Your task to perform on an android device: set default search engine in the chrome app Image 0: 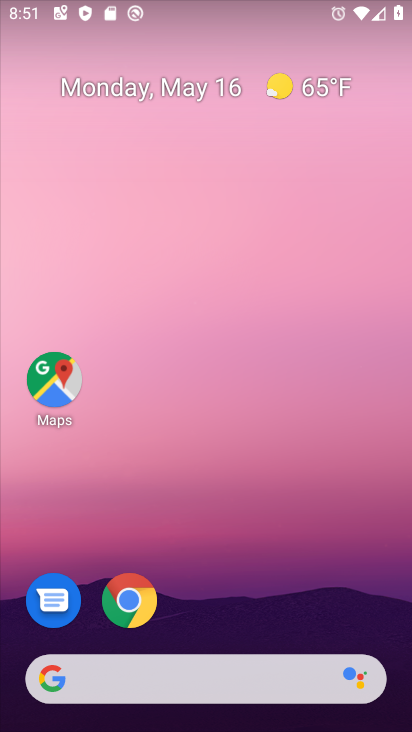
Step 0: drag from (230, 611) to (283, 15)
Your task to perform on an android device: set default search engine in the chrome app Image 1: 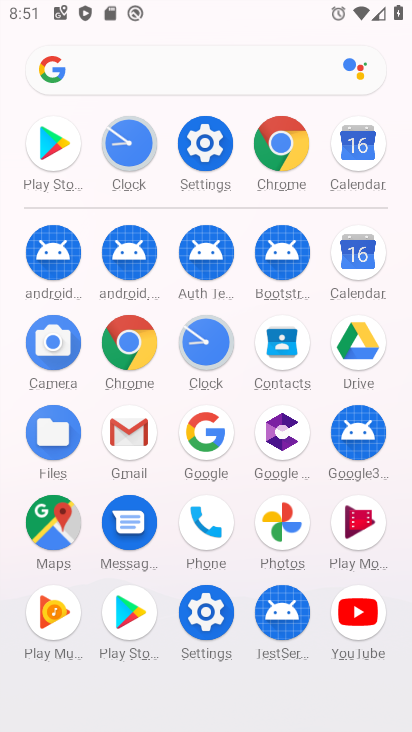
Step 1: click (129, 330)
Your task to perform on an android device: set default search engine in the chrome app Image 2: 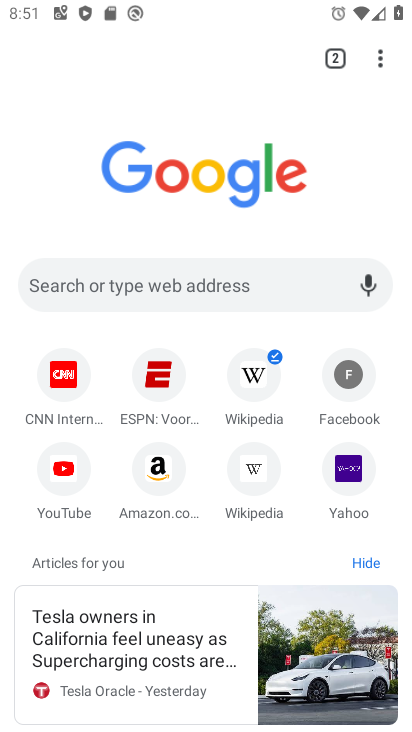
Step 2: click (378, 45)
Your task to perform on an android device: set default search engine in the chrome app Image 3: 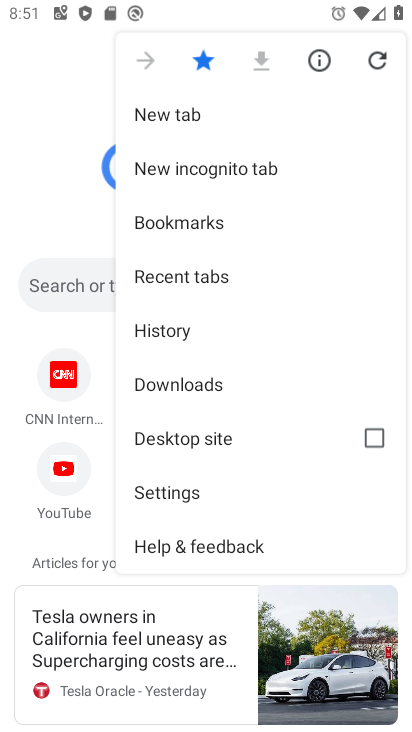
Step 3: click (210, 472)
Your task to perform on an android device: set default search engine in the chrome app Image 4: 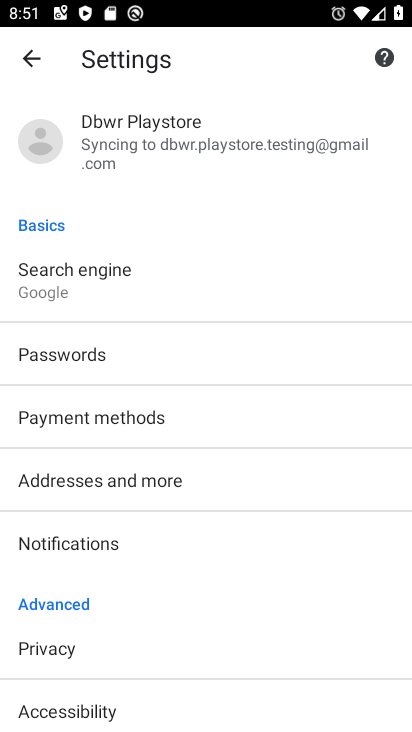
Step 4: click (92, 274)
Your task to perform on an android device: set default search engine in the chrome app Image 5: 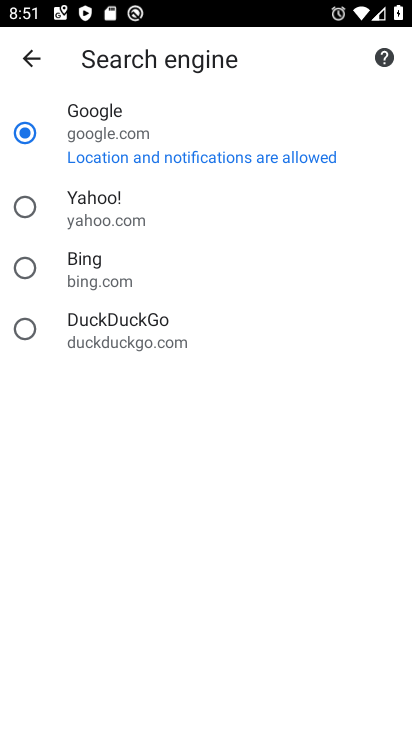
Step 5: click (107, 126)
Your task to perform on an android device: set default search engine in the chrome app Image 6: 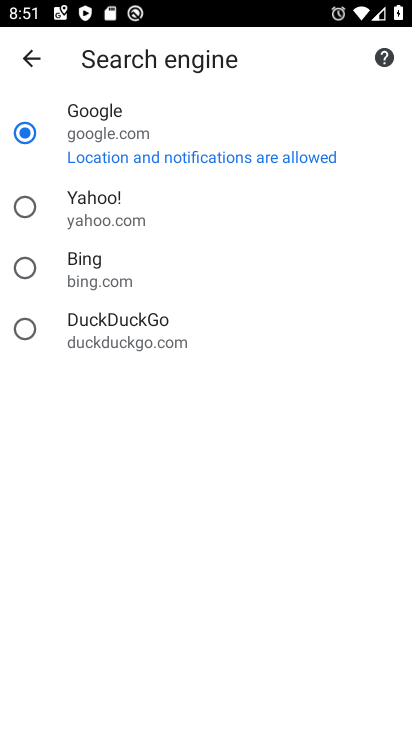
Step 6: click (92, 222)
Your task to perform on an android device: set default search engine in the chrome app Image 7: 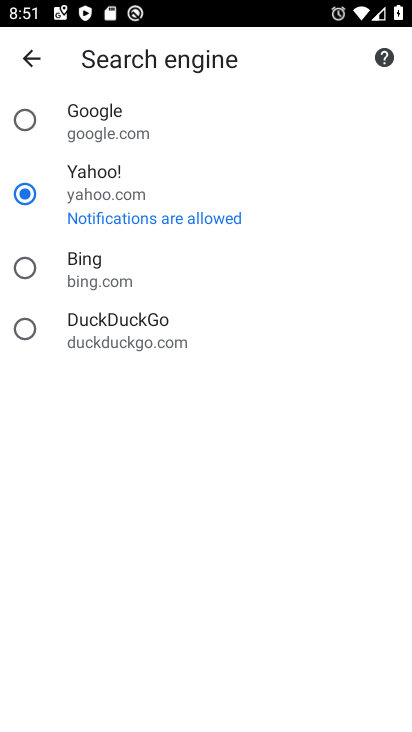
Step 7: task complete